Your task to perform on an android device: Go to eBay Image 0: 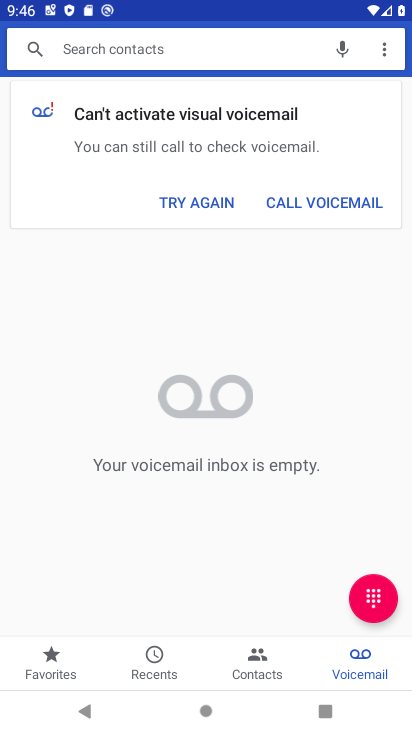
Step 0: press home button
Your task to perform on an android device: Go to eBay Image 1: 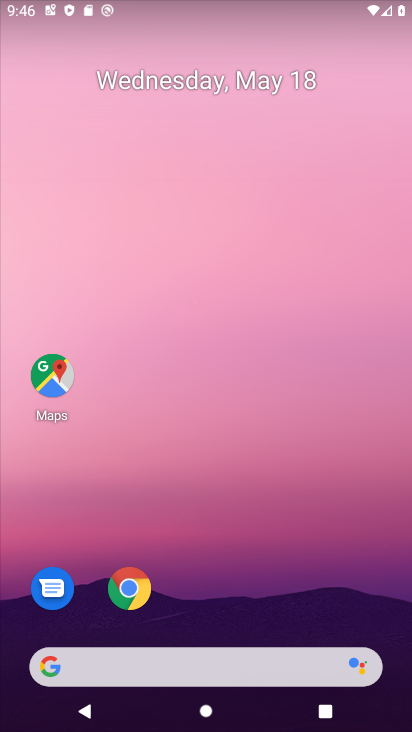
Step 1: drag from (268, 688) to (221, 293)
Your task to perform on an android device: Go to eBay Image 2: 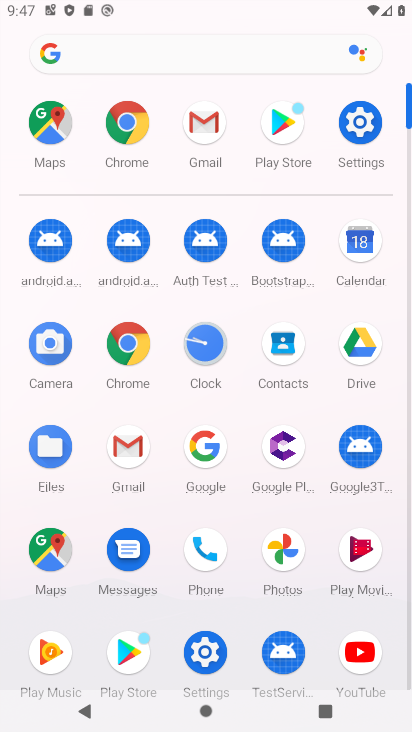
Step 2: click (108, 122)
Your task to perform on an android device: Go to eBay Image 3: 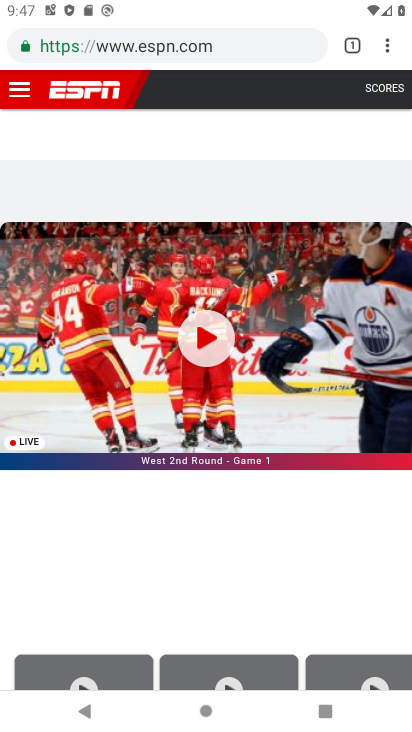
Step 3: click (199, 41)
Your task to perform on an android device: Go to eBay Image 4: 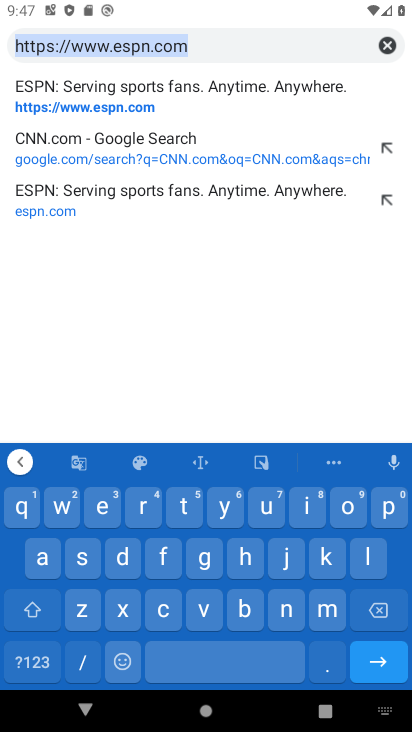
Step 4: click (103, 511)
Your task to perform on an android device: Go to eBay Image 5: 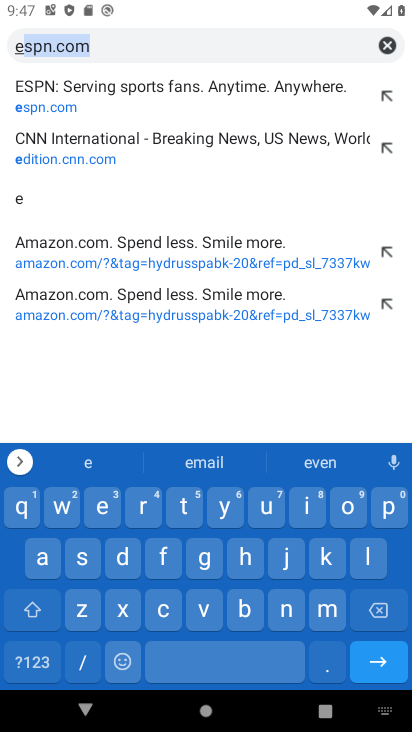
Step 5: click (246, 615)
Your task to perform on an android device: Go to eBay Image 6: 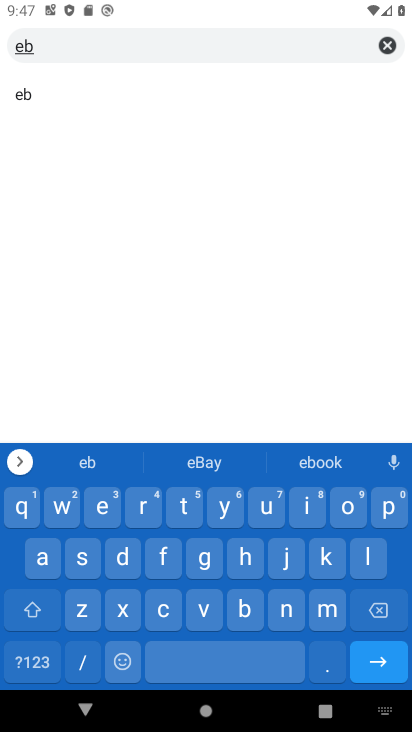
Step 6: click (36, 566)
Your task to perform on an android device: Go to eBay Image 7: 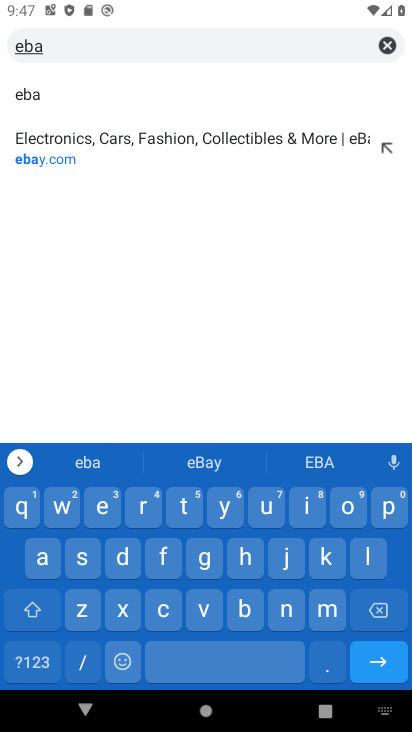
Step 7: click (227, 512)
Your task to perform on an android device: Go to eBay Image 8: 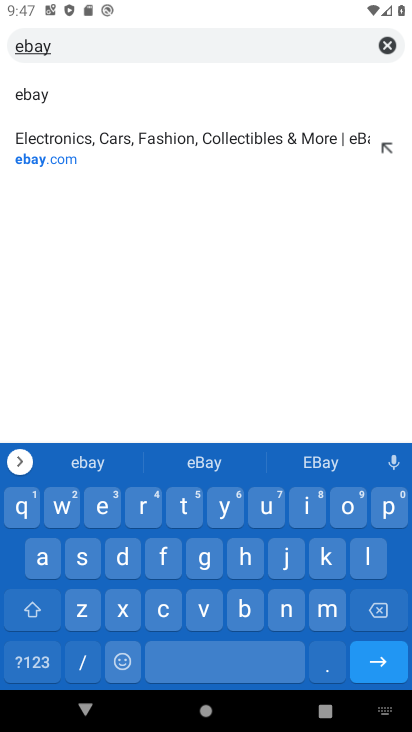
Step 8: click (386, 662)
Your task to perform on an android device: Go to eBay Image 9: 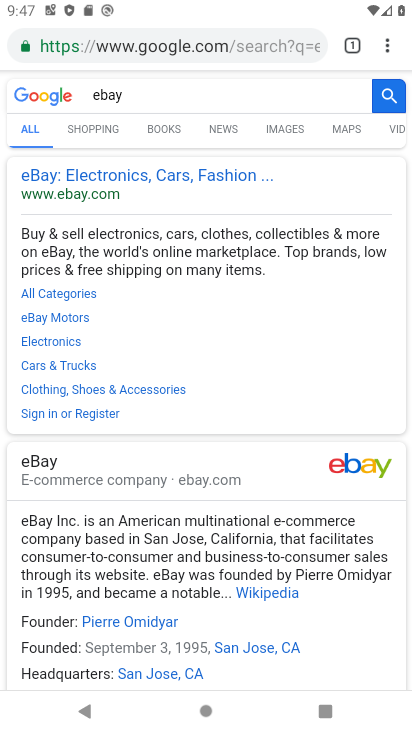
Step 9: click (79, 185)
Your task to perform on an android device: Go to eBay Image 10: 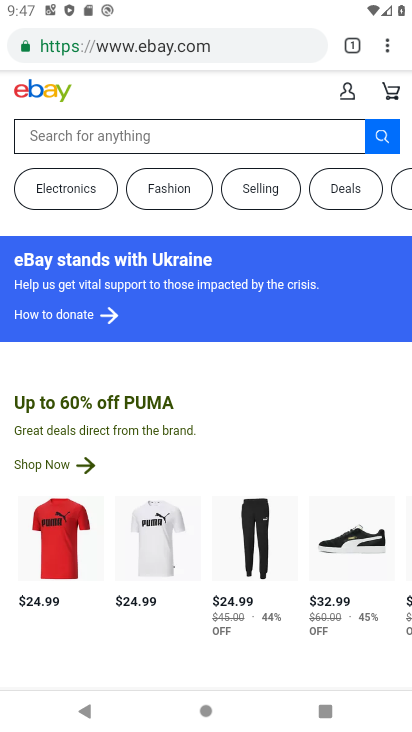
Step 10: task complete